Your task to perform on an android device: Open Google Chrome Image 0: 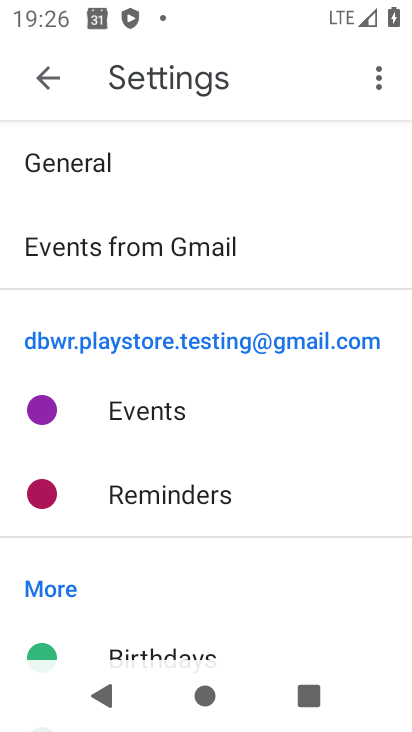
Step 0: press home button
Your task to perform on an android device: Open Google Chrome Image 1: 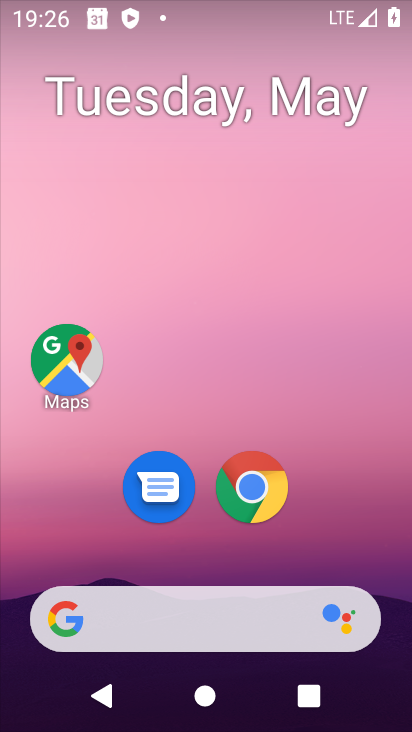
Step 1: click (250, 485)
Your task to perform on an android device: Open Google Chrome Image 2: 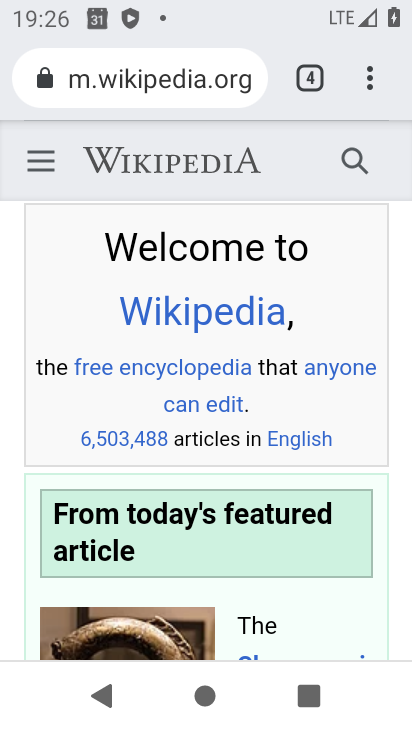
Step 2: task complete